Your task to perform on an android device: all mails in gmail Image 0: 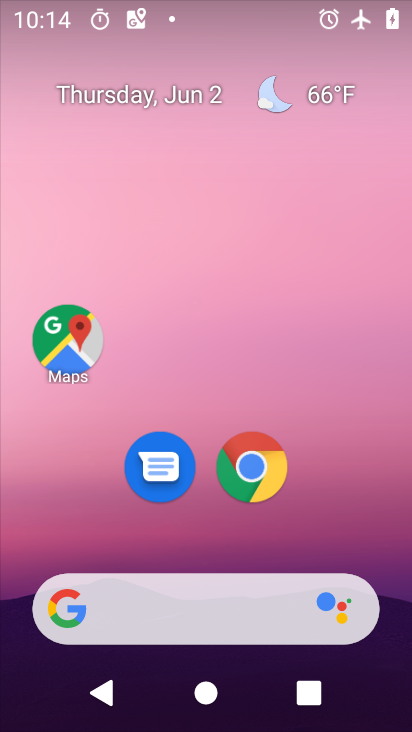
Step 0: drag from (61, 554) to (291, 158)
Your task to perform on an android device: all mails in gmail Image 1: 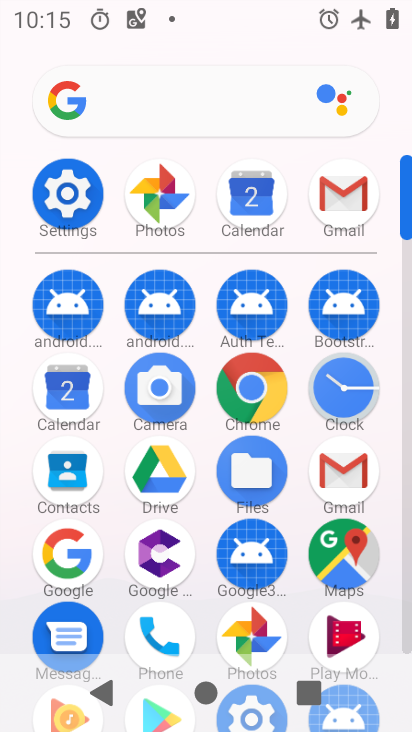
Step 1: click (347, 196)
Your task to perform on an android device: all mails in gmail Image 2: 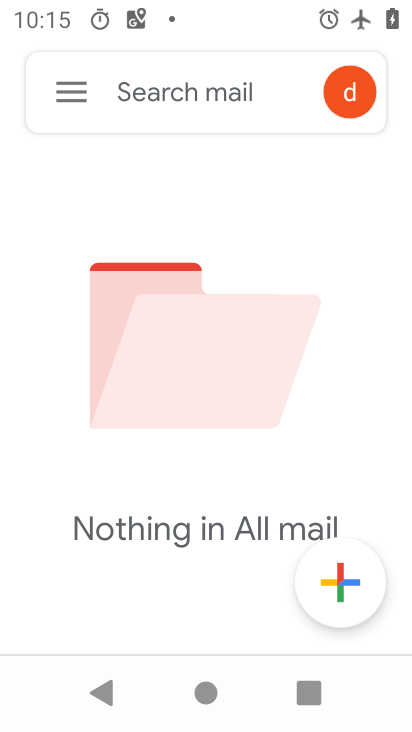
Step 2: click (58, 102)
Your task to perform on an android device: all mails in gmail Image 3: 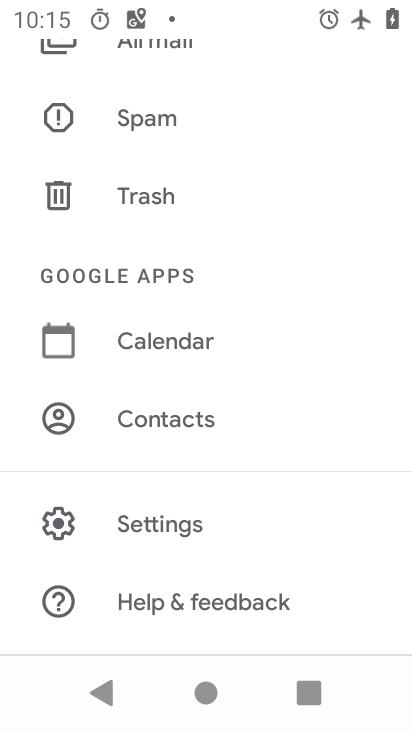
Step 3: drag from (146, 119) to (154, 485)
Your task to perform on an android device: all mails in gmail Image 4: 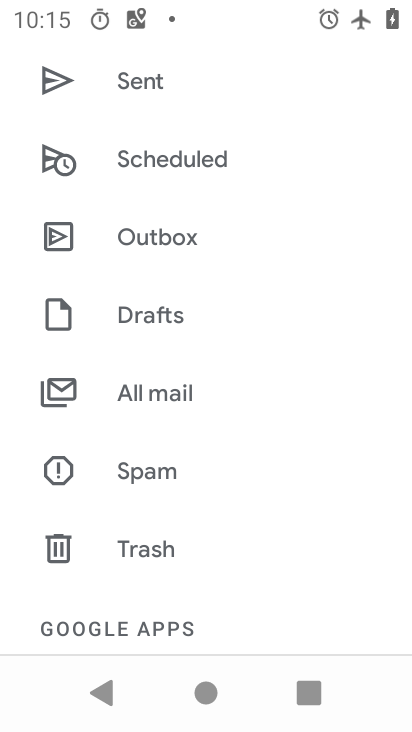
Step 4: click (105, 410)
Your task to perform on an android device: all mails in gmail Image 5: 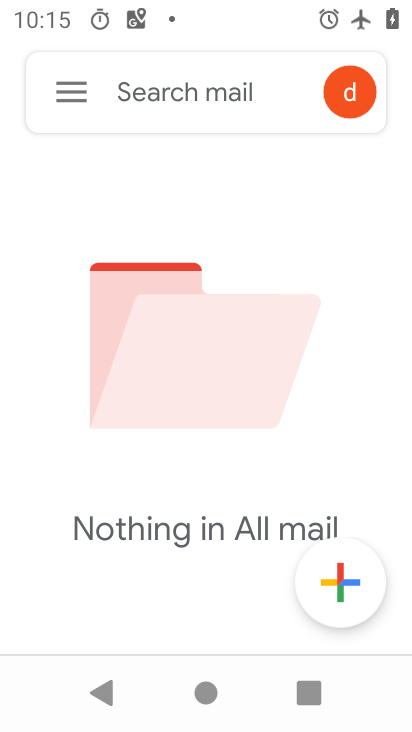
Step 5: task complete